Your task to perform on an android device: Go to Maps Image 0: 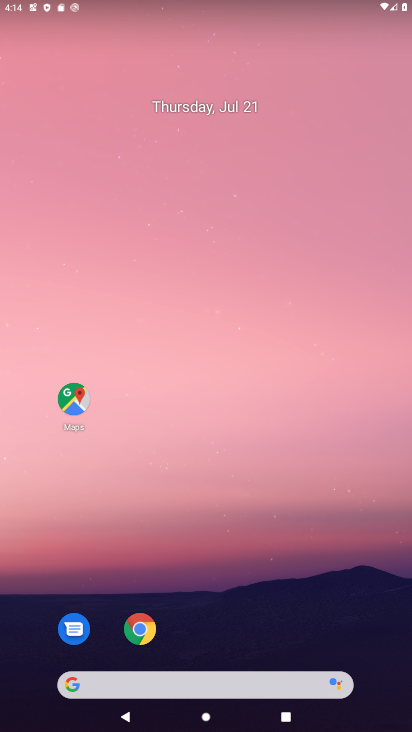
Step 0: drag from (307, 648) to (227, 107)
Your task to perform on an android device: Go to Maps Image 1: 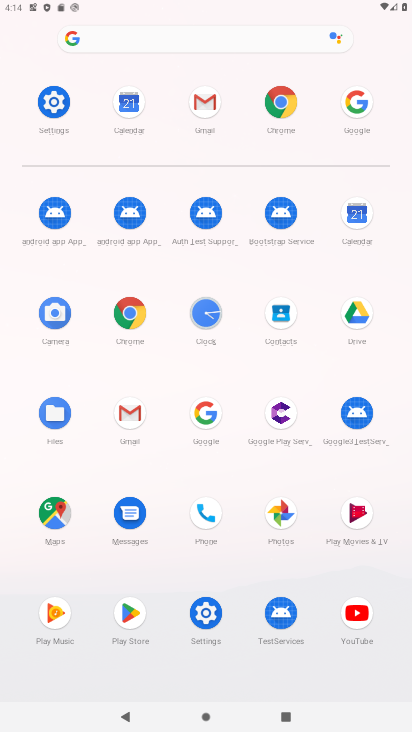
Step 1: click (50, 516)
Your task to perform on an android device: Go to Maps Image 2: 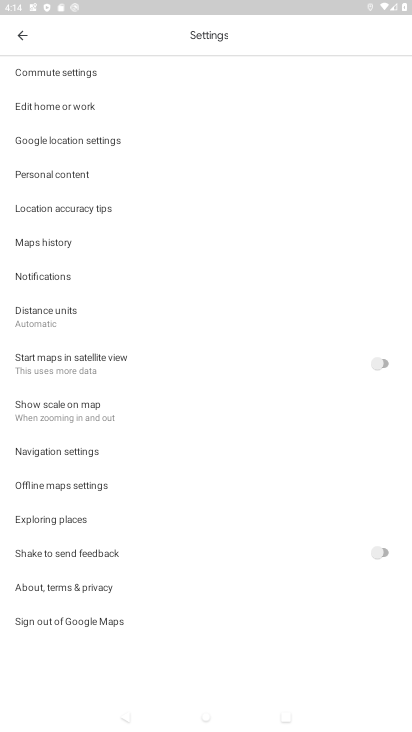
Step 2: click (26, 38)
Your task to perform on an android device: Go to Maps Image 3: 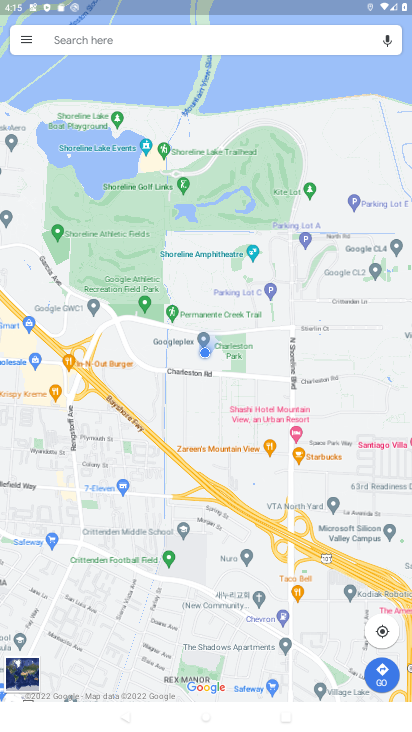
Step 3: task complete